Your task to perform on an android device: toggle data saver in the chrome app Image 0: 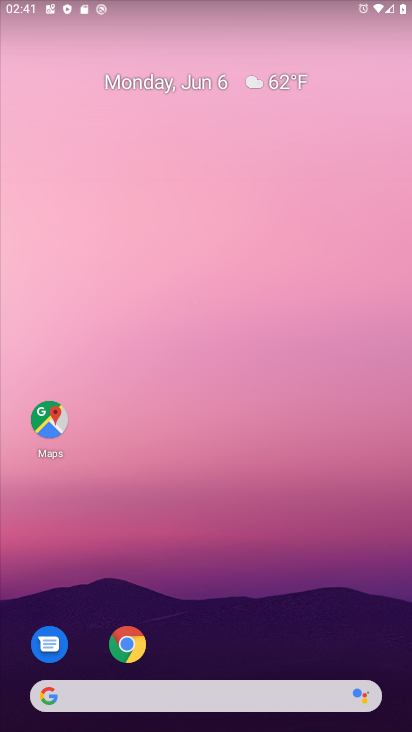
Step 0: click (124, 655)
Your task to perform on an android device: toggle data saver in the chrome app Image 1: 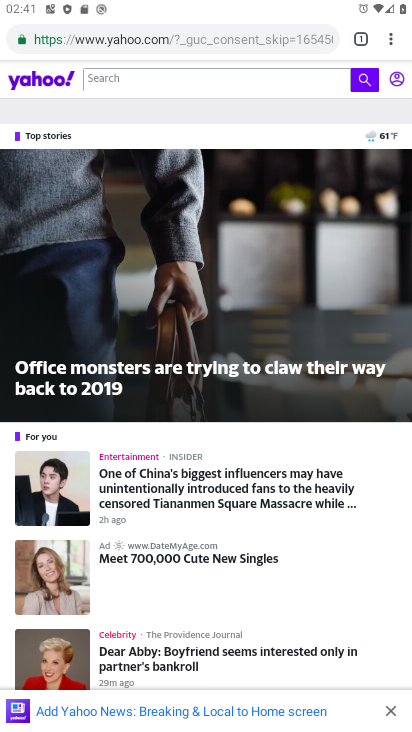
Step 1: click (388, 39)
Your task to perform on an android device: toggle data saver in the chrome app Image 2: 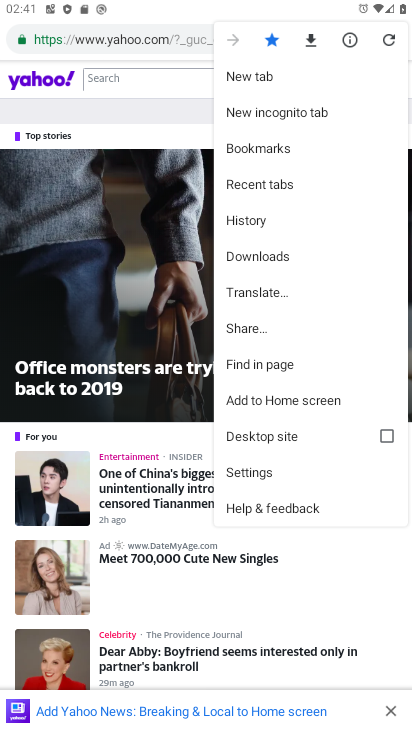
Step 2: click (262, 479)
Your task to perform on an android device: toggle data saver in the chrome app Image 3: 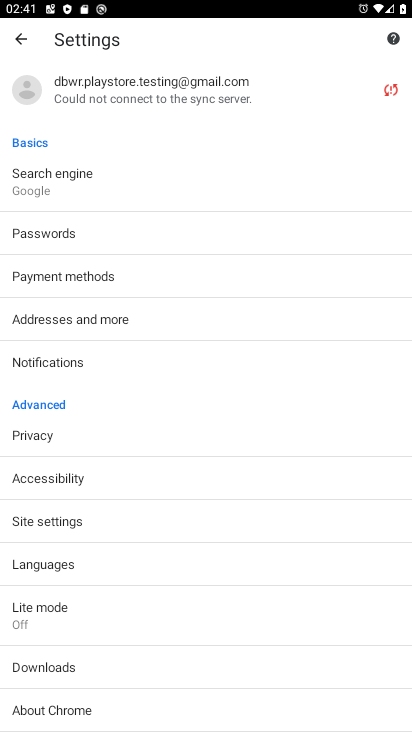
Step 3: click (50, 622)
Your task to perform on an android device: toggle data saver in the chrome app Image 4: 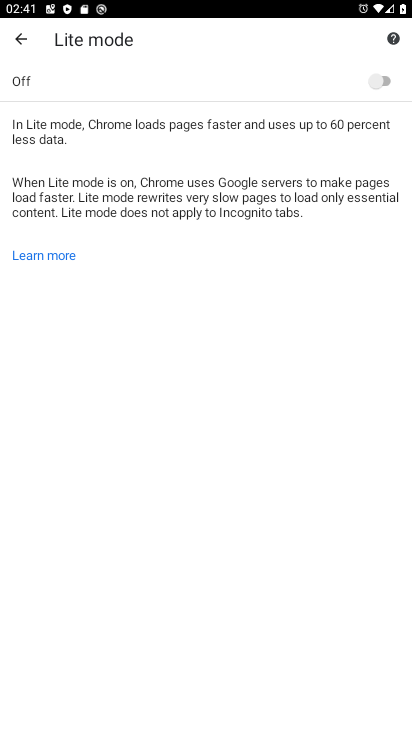
Step 4: click (387, 81)
Your task to perform on an android device: toggle data saver in the chrome app Image 5: 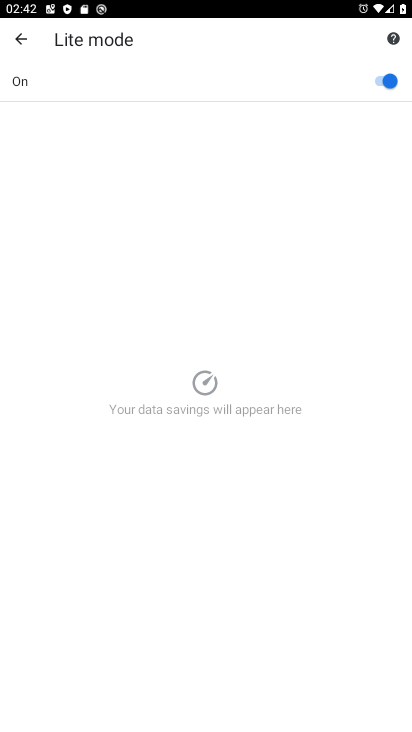
Step 5: task complete